Your task to perform on an android device: Open the web browser Image 0: 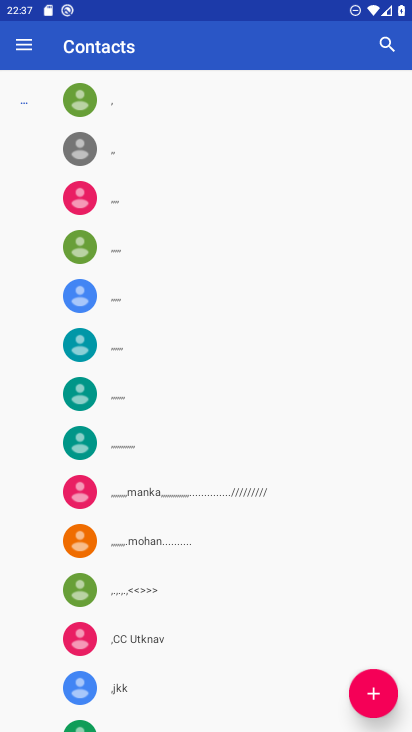
Step 0: press home button
Your task to perform on an android device: Open the web browser Image 1: 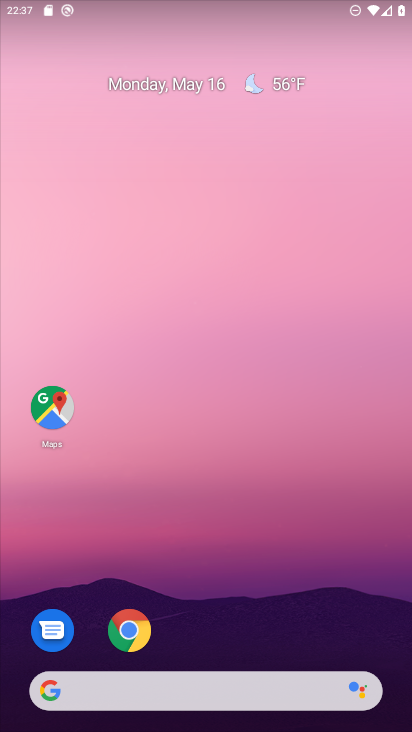
Step 1: click (134, 646)
Your task to perform on an android device: Open the web browser Image 2: 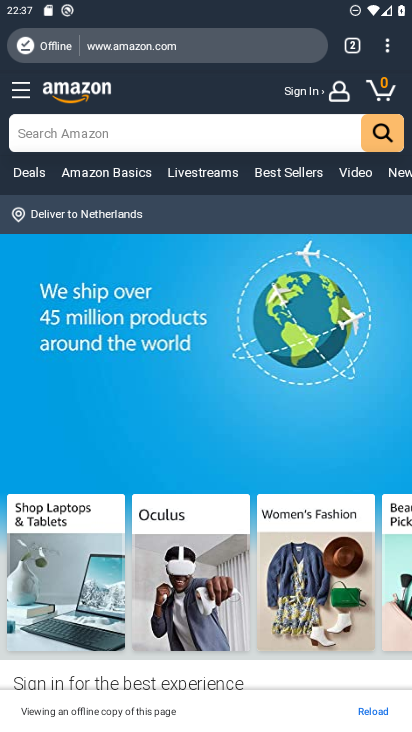
Step 2: task complete